Your task to perform on an android device: Open the stopwatch Image 0: 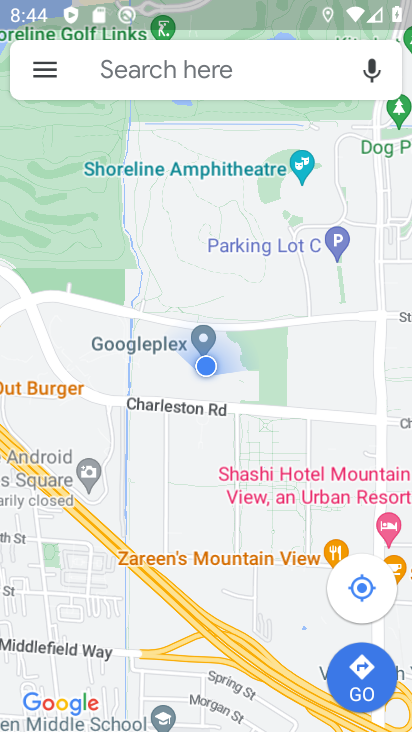
Step 0: press home button
Your task to perform on an android device: Open the stopwatch Image 1: 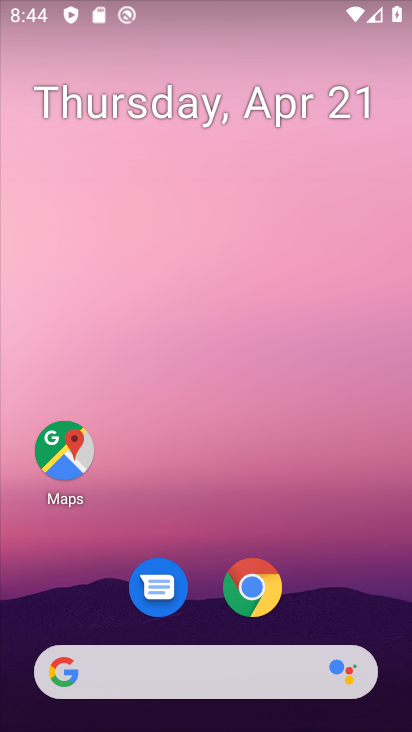
Step 1: drag from (308, 435) to (286, 79)
Your task to perform on an android device: Open the stopwatch Image 2: 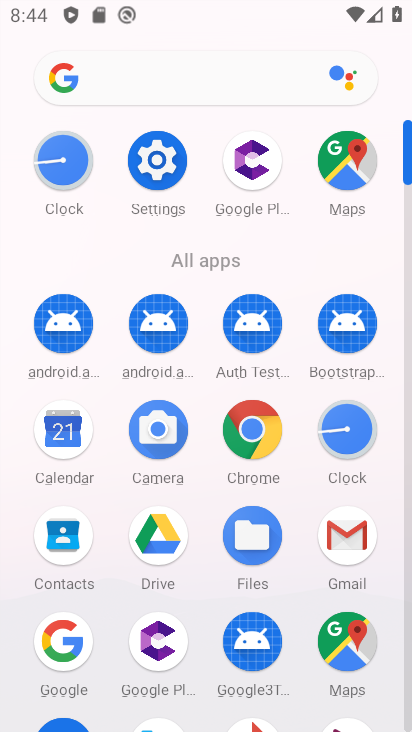
Step 2: click (337, 423)
Your task to perform on an android device: Open the stopwatch Image 3: 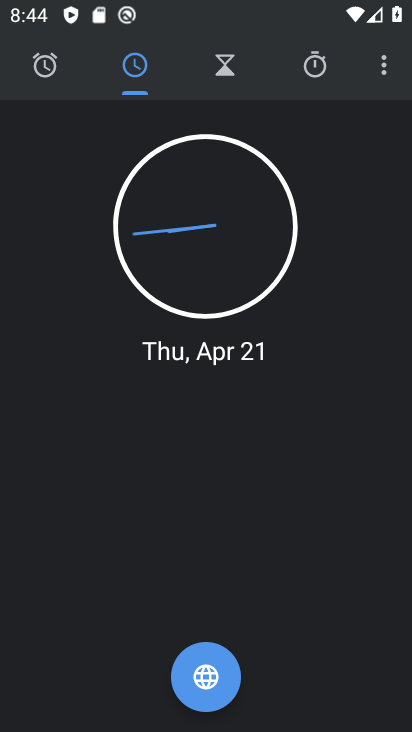
Step 3: click (318, 73)
Your task to perform on an android device: Open the stopwatch Image 4: 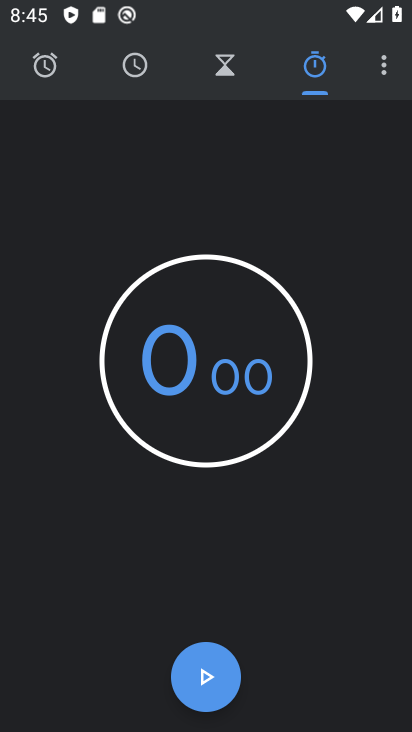
Step 4: task complete